Your task to perform on an android device: turn off translation in the chrome app Image 0: 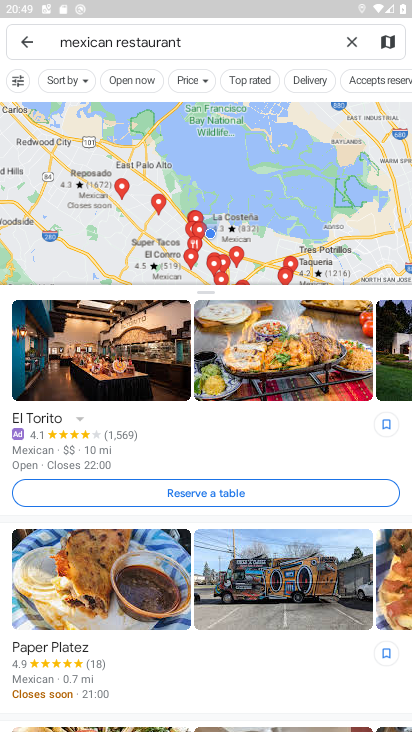
Step 0: press home button
Your task to perform on an android device: turn off translation in the chrome app Image 1: 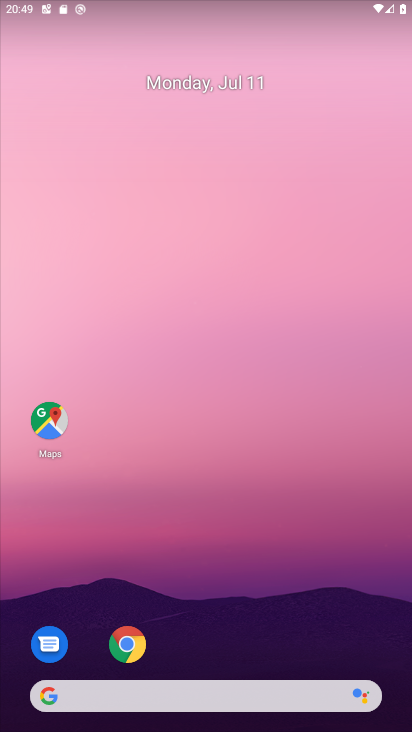
Step 1: drag from (239, 667) to (213, 305)
Your task to perform on an android device: turn off translation in the chrome app Image 2: 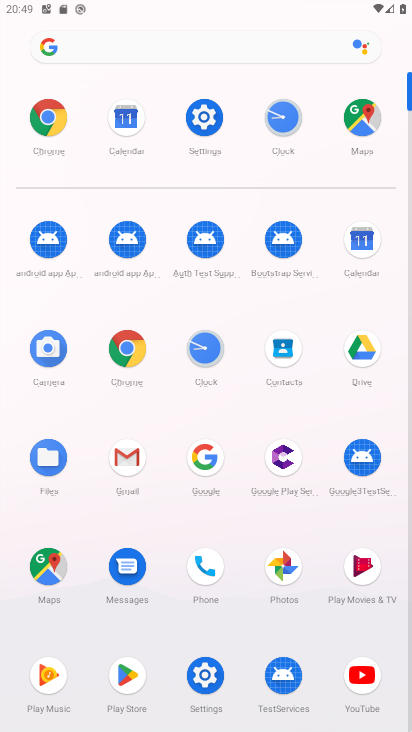
Step 2: click (50, 105)
Your task to perform on an android device: turn off translation in the chrome app Image 3: 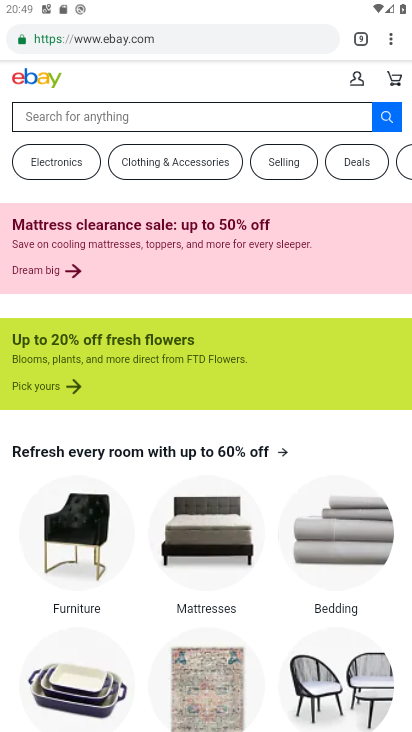
Step 3: click (388, 41)
Your task to perform on an android device: turn off translation in the chrome app Image 4: 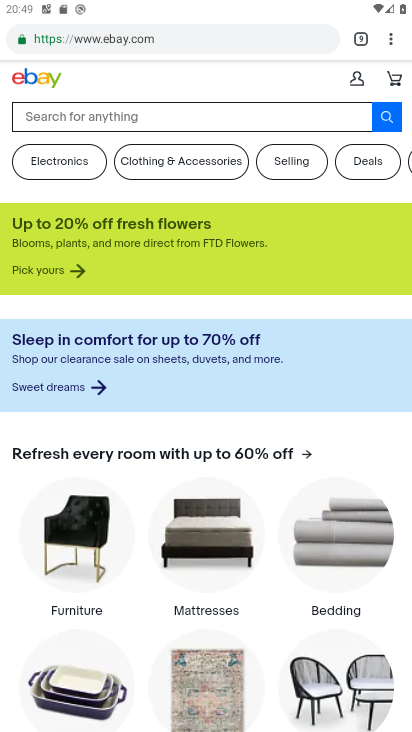
Step 4: click (388, 41)
Your task to perform on an android device: turn off translation in the chrome app Image 5: 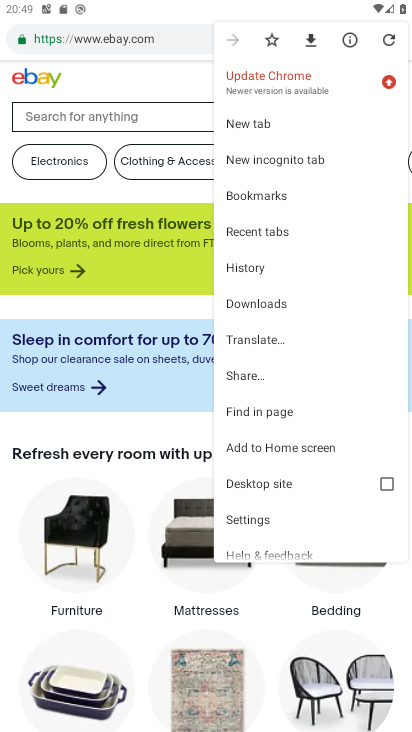
Step 5: click (275, 517)
Your task to perform on an android device: turn off translation in the chrome app Image 6: 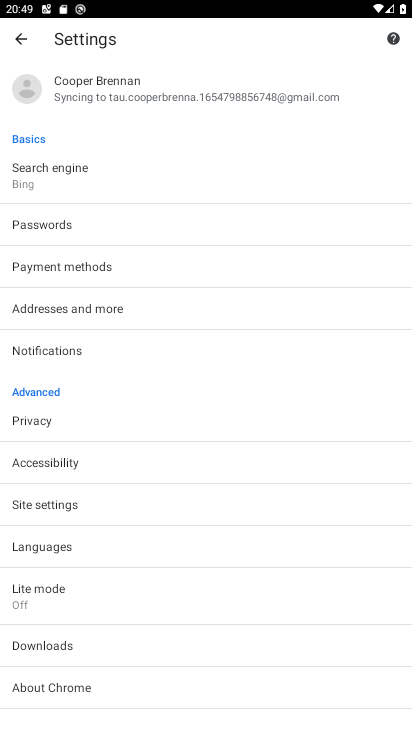
Step 6: click (111, 501)
Your task to perform on an android device: turn off translation in the chrome app Image 7: 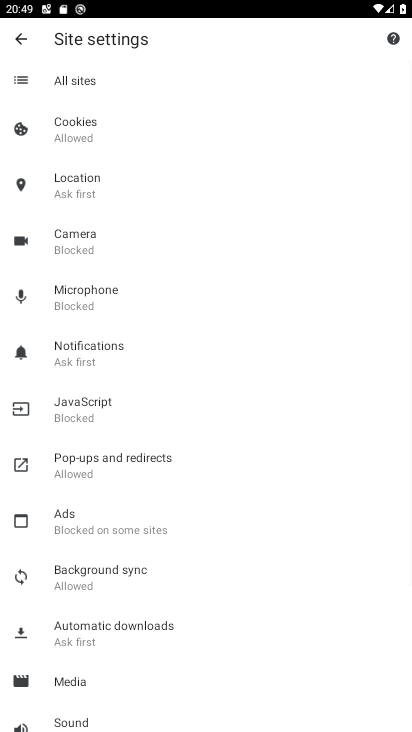
Step 7: click (92, 192)
Your task to perform on an android device: turn off translation in the chrome app Image 8: 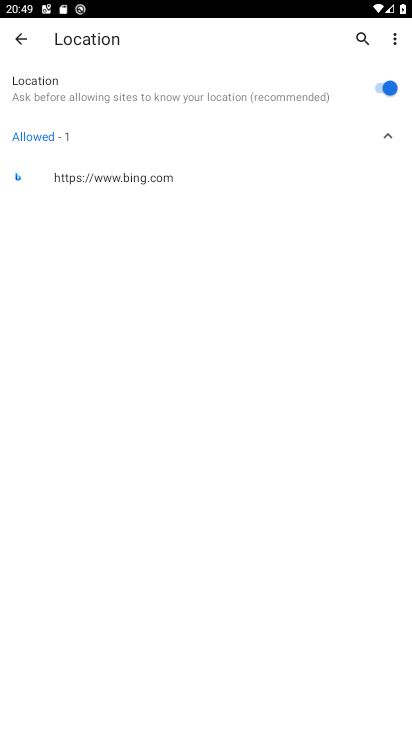
Step 8: click (372, 88)
Your task to perform on an android device: turn off translation in the chrome app Image 9: 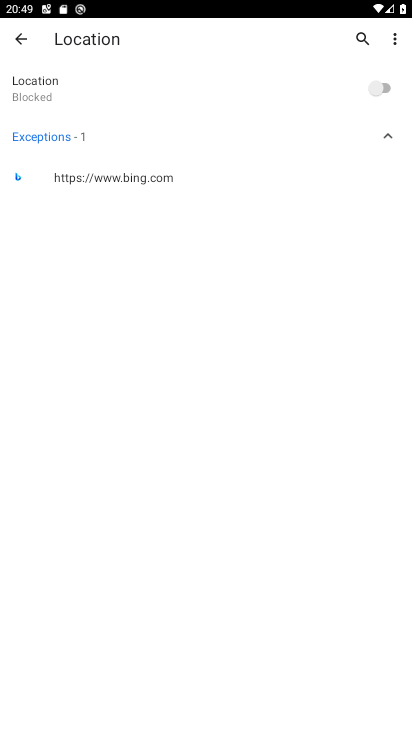
Step 9: task complete